Your task to perform on an android device: turn on bluetooth scan Image 0: 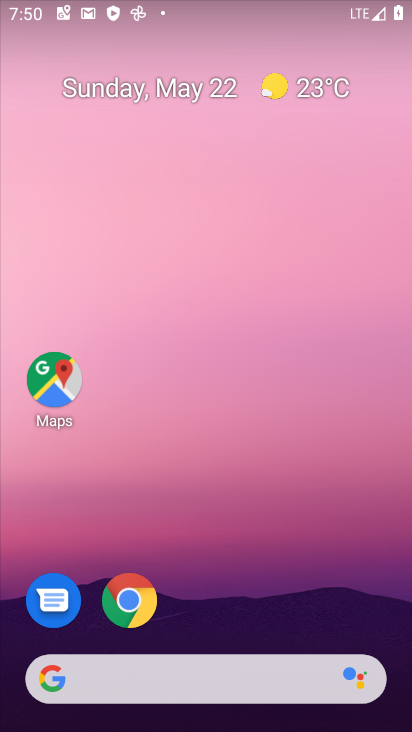
Step 0: drag from (330, 640) to (238, 5)
Your task to perform on an android device: turn on bluetooth scan Image 1: 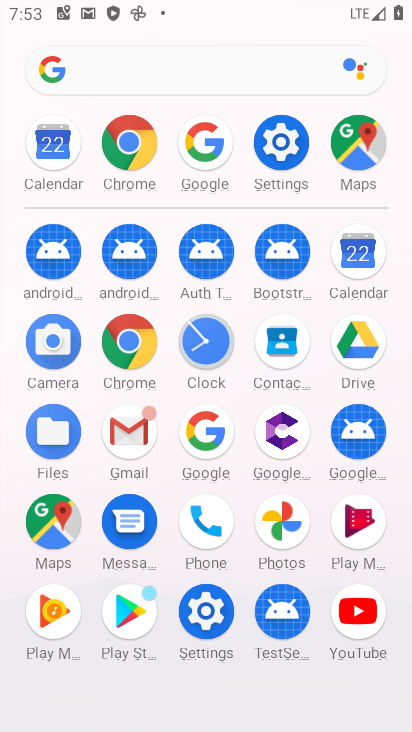
Step 1: click (227, 600)
Your task to perform on an android device: turn on bluetooth scan Image 2: 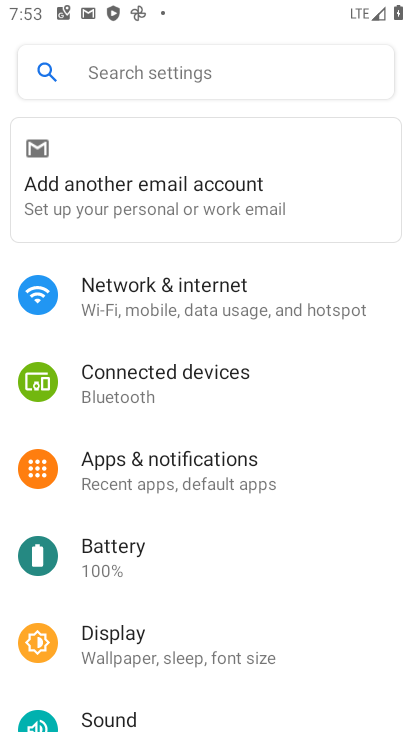
Step 2: drag from (170, 641) to (168, 151)
Your task to perform on an android device: turn on bluetooth scan Image 3: 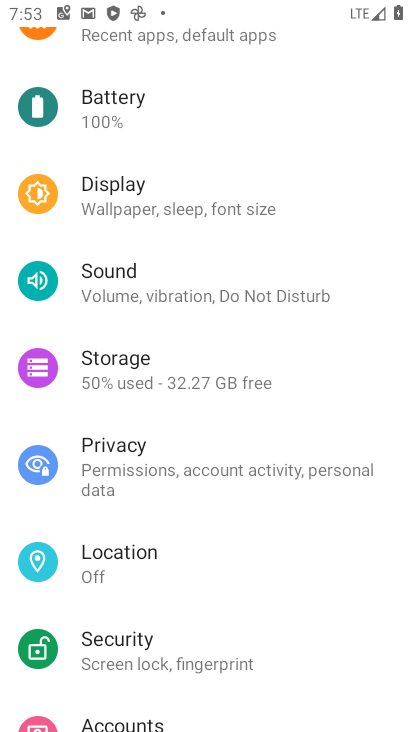
Step 3: click (196, 571)
Your task to perform on an android device: turn on bluetooth scan Image 4: 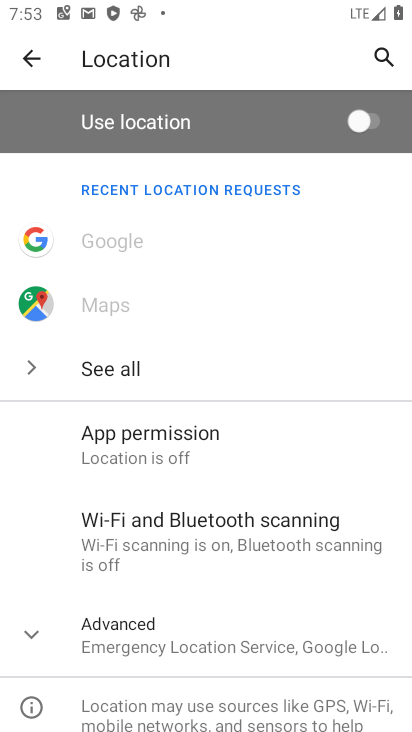
Step 4: click (224, 564)
Your task to perform on an android device: turn on bluetooth scan Image 5: 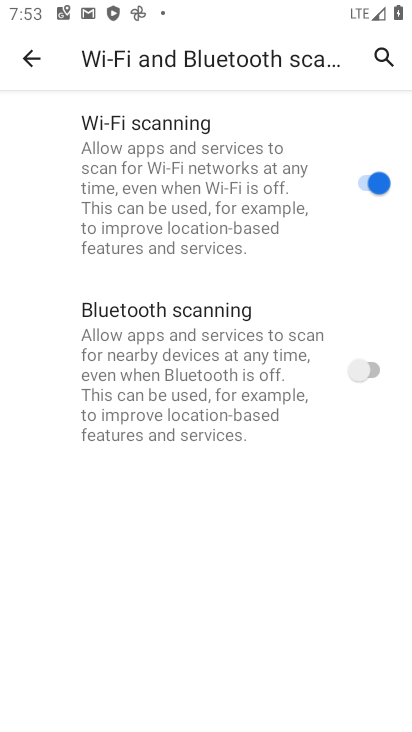
Step 5: click (347, 388)
Your task to perform on an android device: turn on bluetooth scan Image 6: 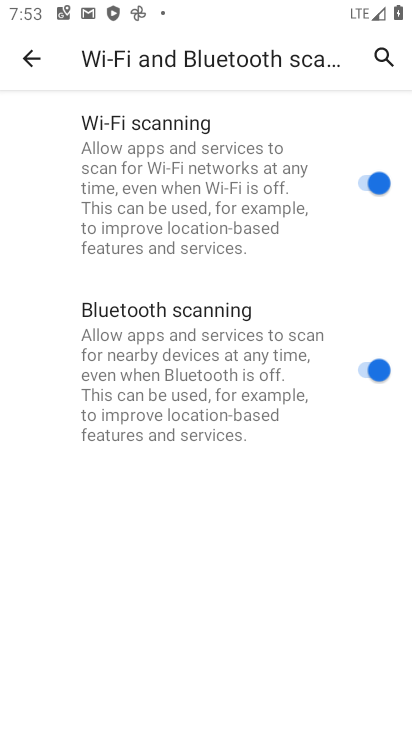
Step 6: task complete